Your task to perform on an android device: Open Google Maps and go to "Timeline" Image 0: 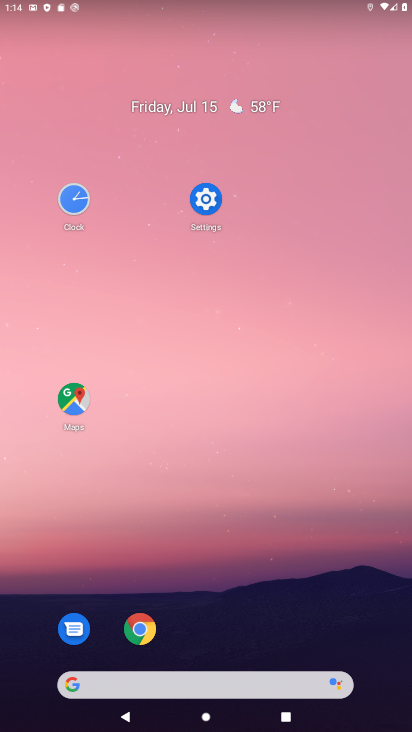
Step 0: click (66, 398)
Your task to perform on an android device: Open Google Maps and go to "Timeline" Image 1: 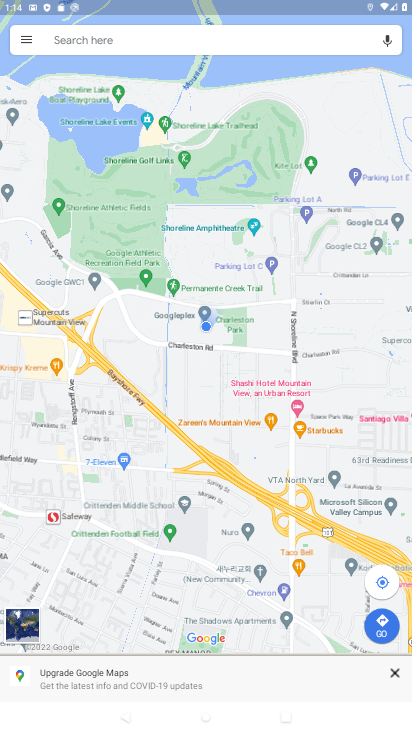
Step 1: click (28, 42)
Your task to perform on an android device: Open Google Maps and go to "Timeline" Image 2: 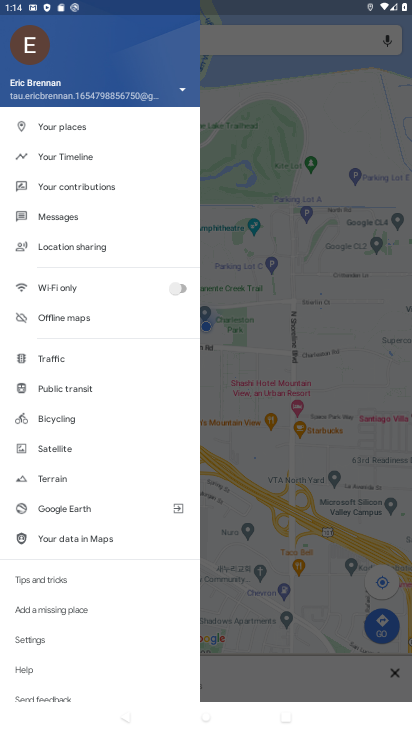
Step 2: click (93, 165)
Your task to perform on an android device: Open Google Maps and go to "Timeline" Image 3: 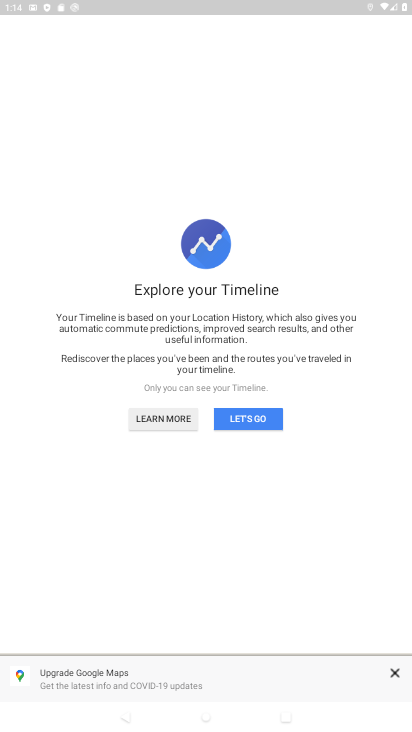
Step 3: click (274, 424)
Your task to perform on an android device: Open Google Maps and go to "Timeline" Image 4: 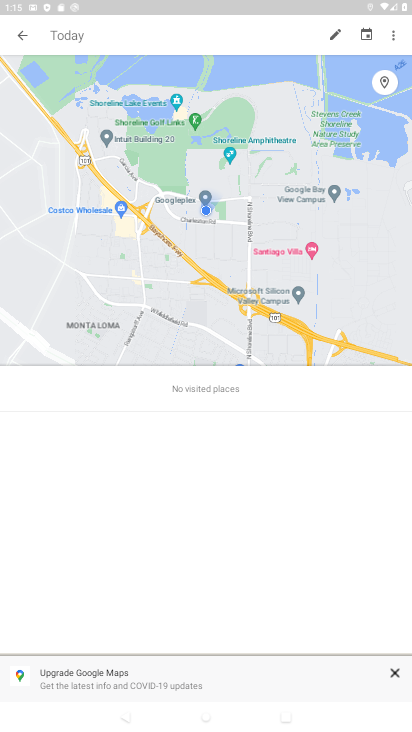
Step 4: task complete